Your task to perform on an android device: Go to Maps Image 0: 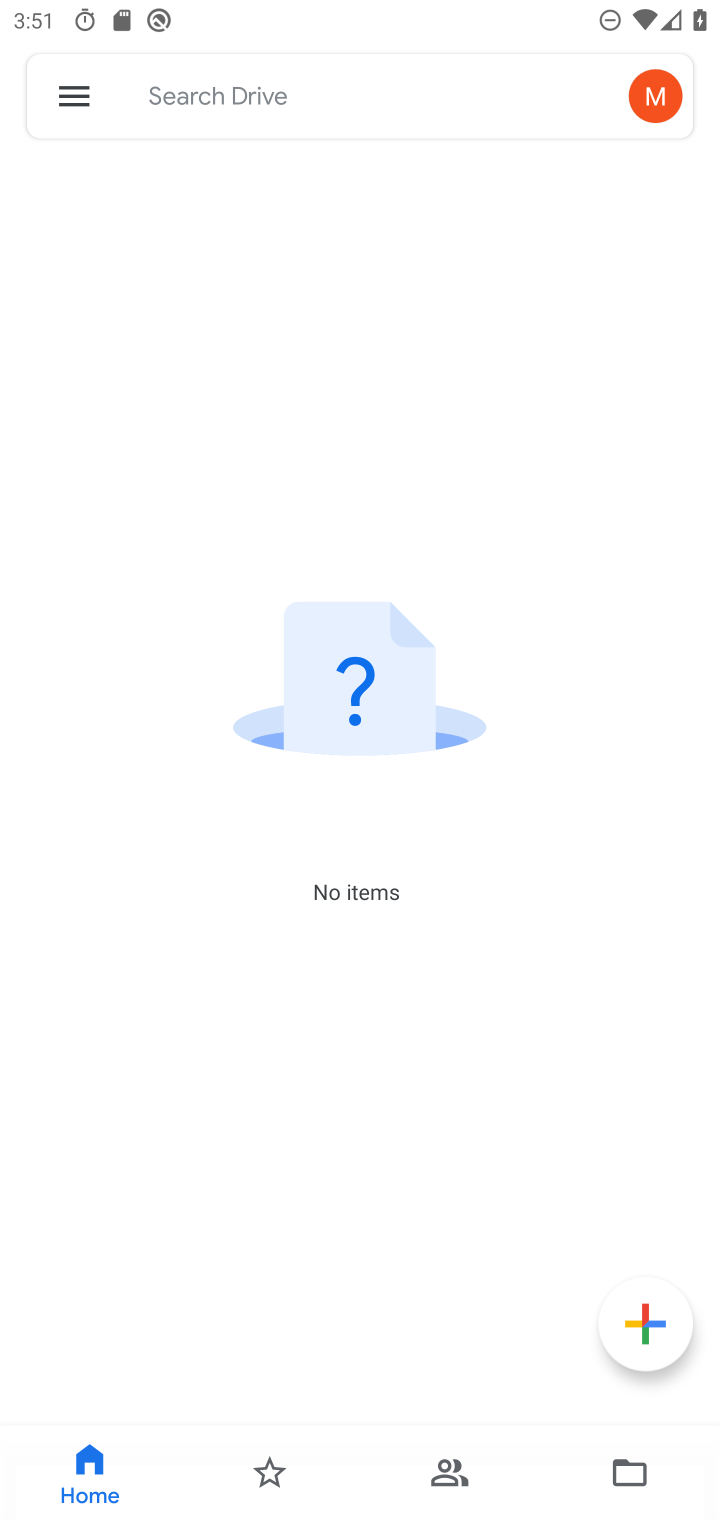
Step 0: press home button
Your task to perform on an android device: Go to Maps Image 1: 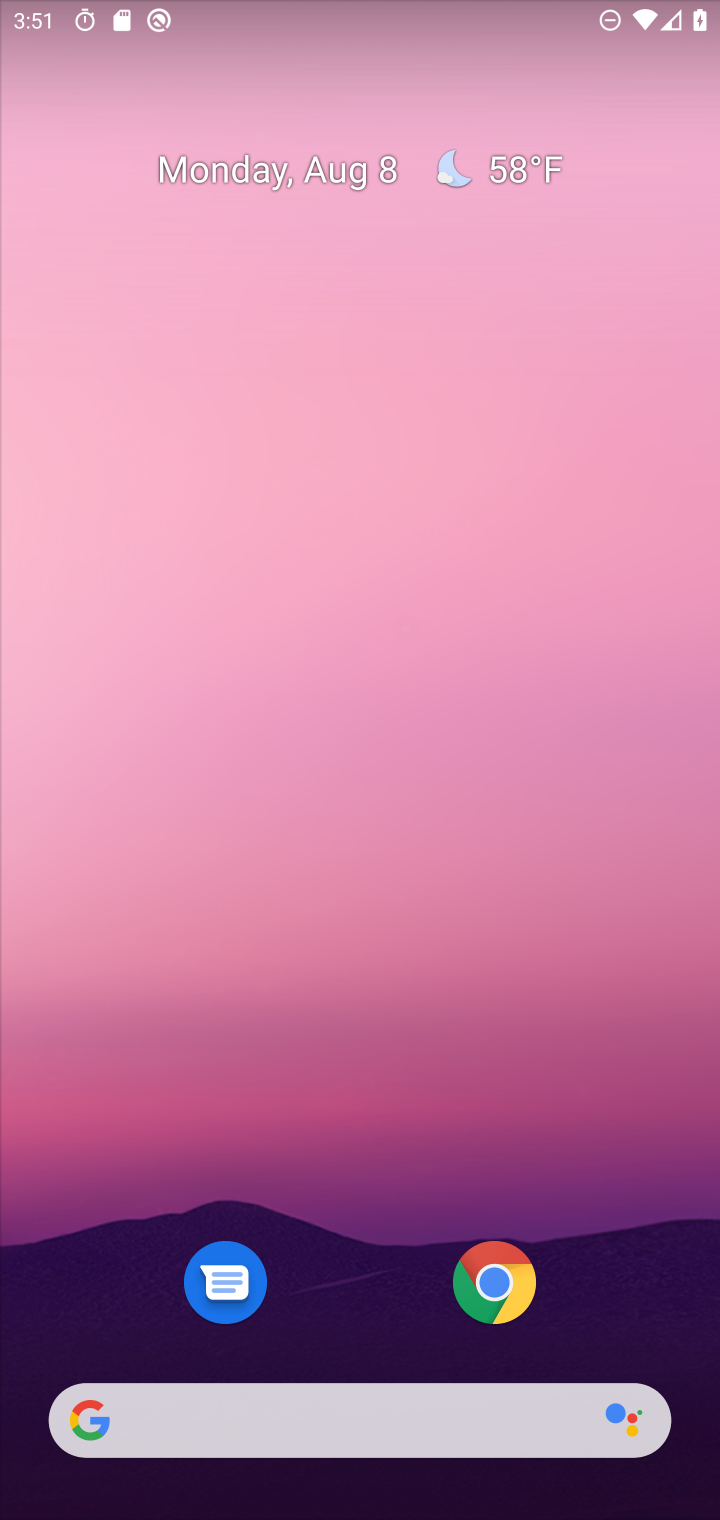
Step 1: drag from (406, 1151) to (714, 109)
Your task to perform on an android device: Go to Maps Image 2: 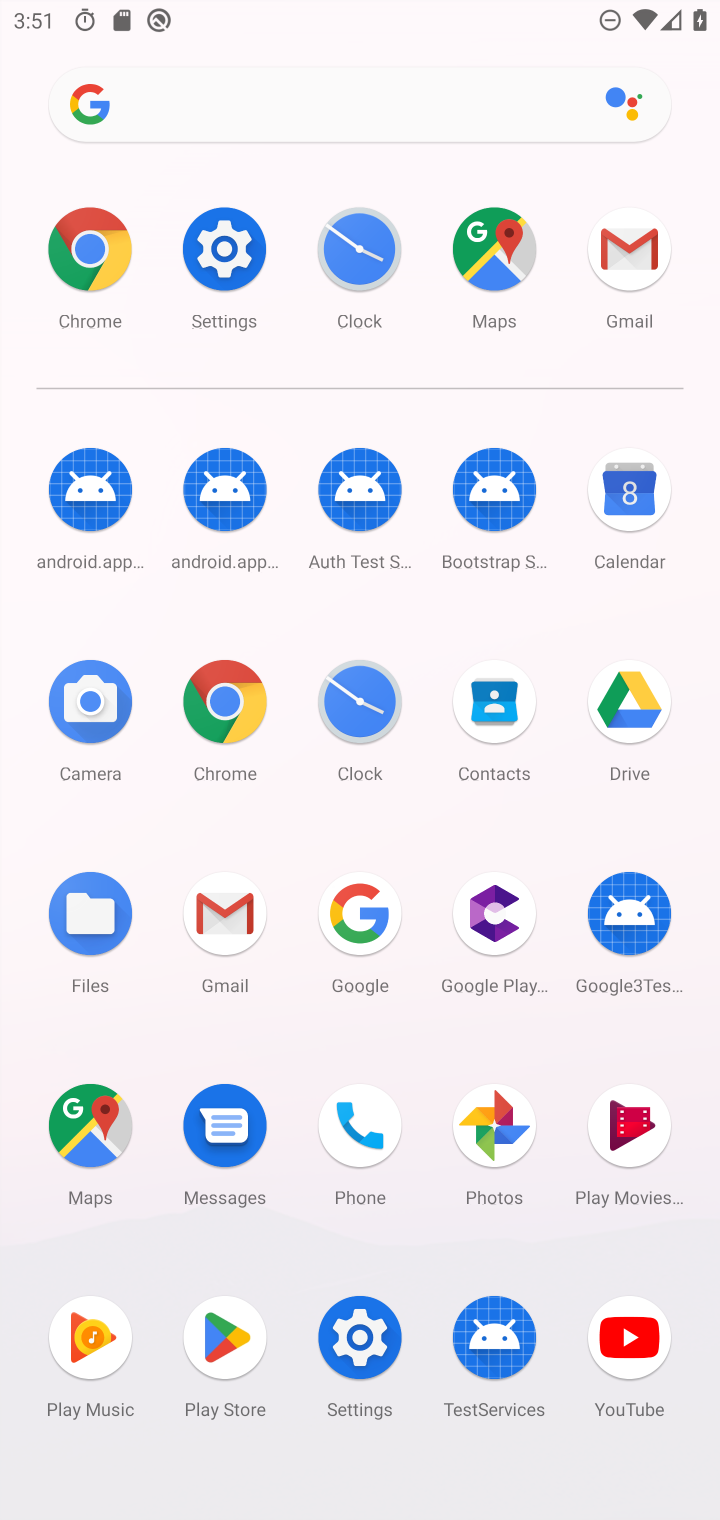
Step 2: click (65, 1133)
Your task to perform on an android device: Go to Maps Image 3: 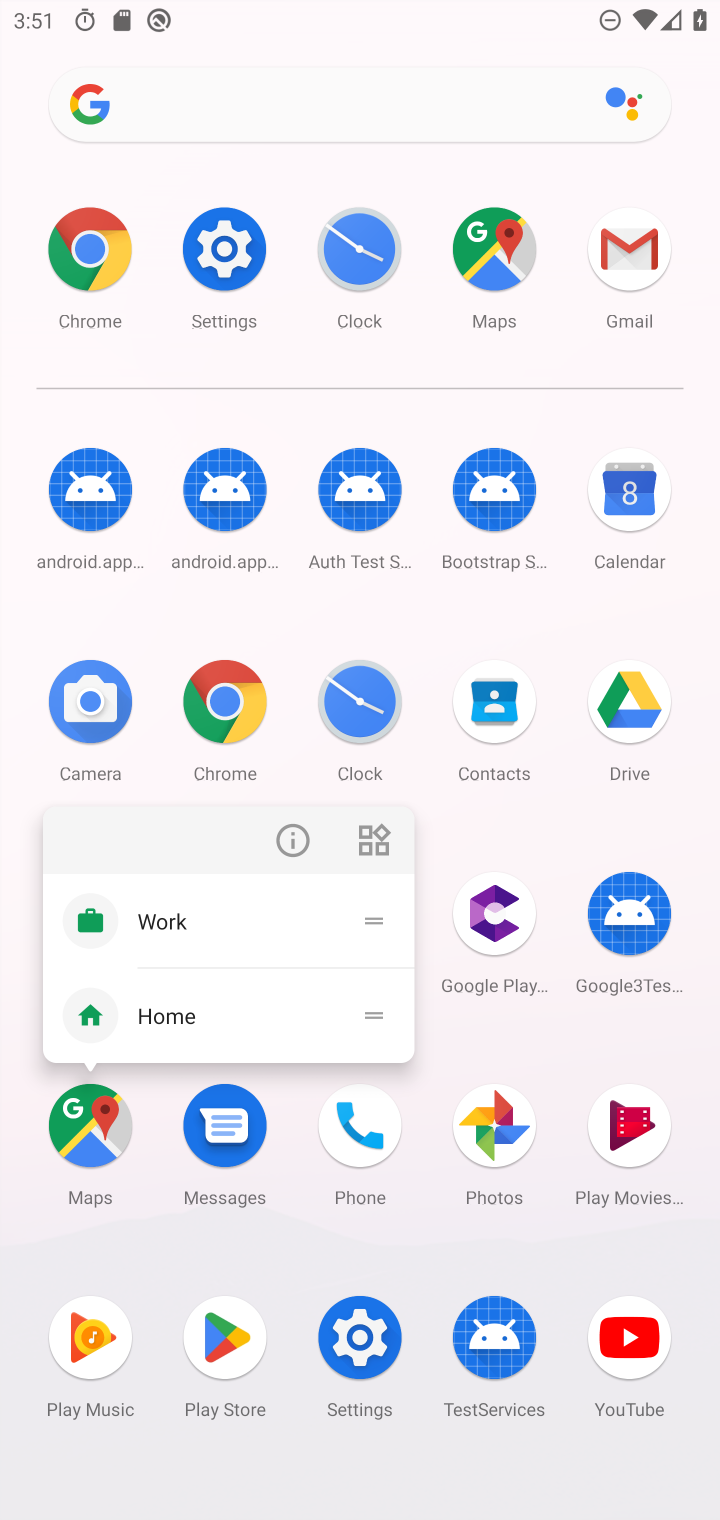
Step 3: click (86, 1131)
Your task to perform on an android device: Go to Maps Image 4: 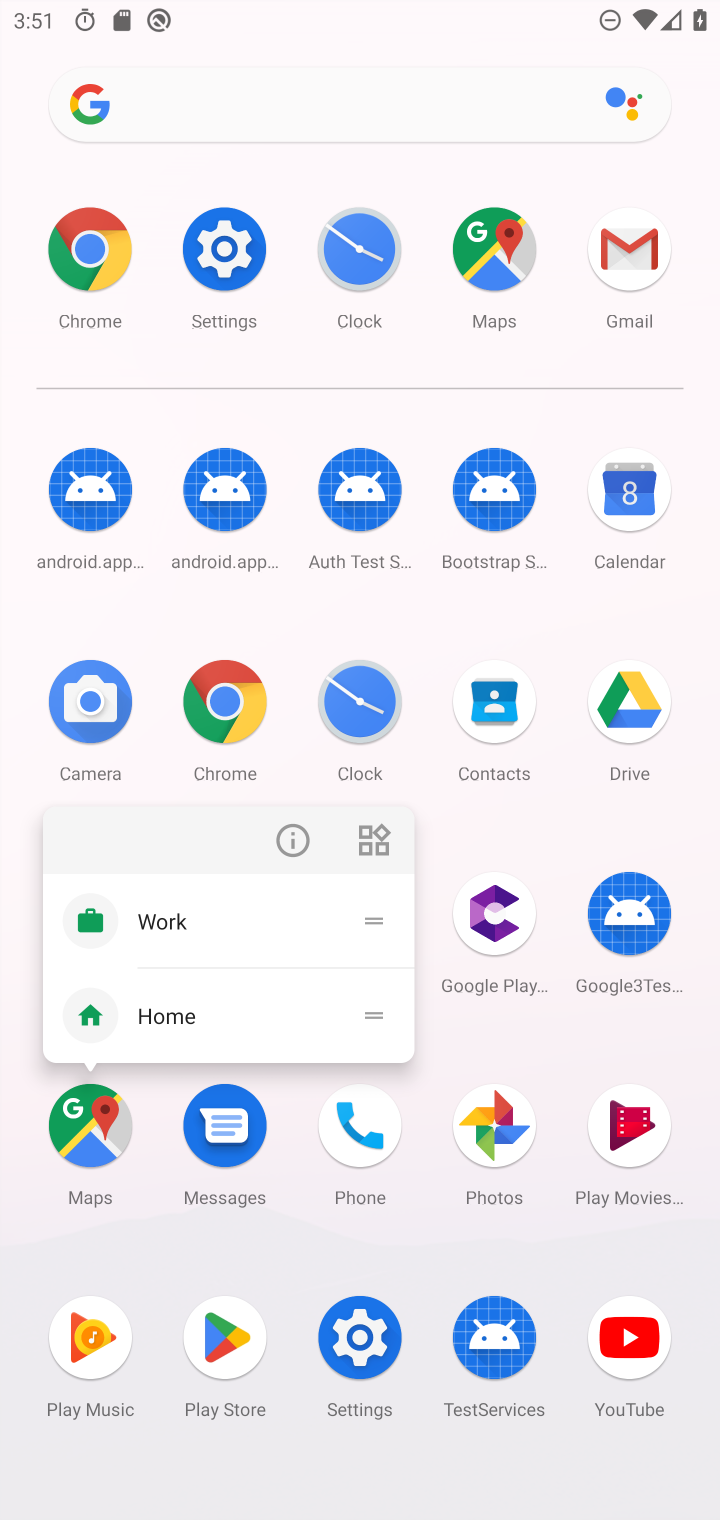
Step 4: click (86, 1129)
Your task to perform on an android device: Go to Maps Image 5: 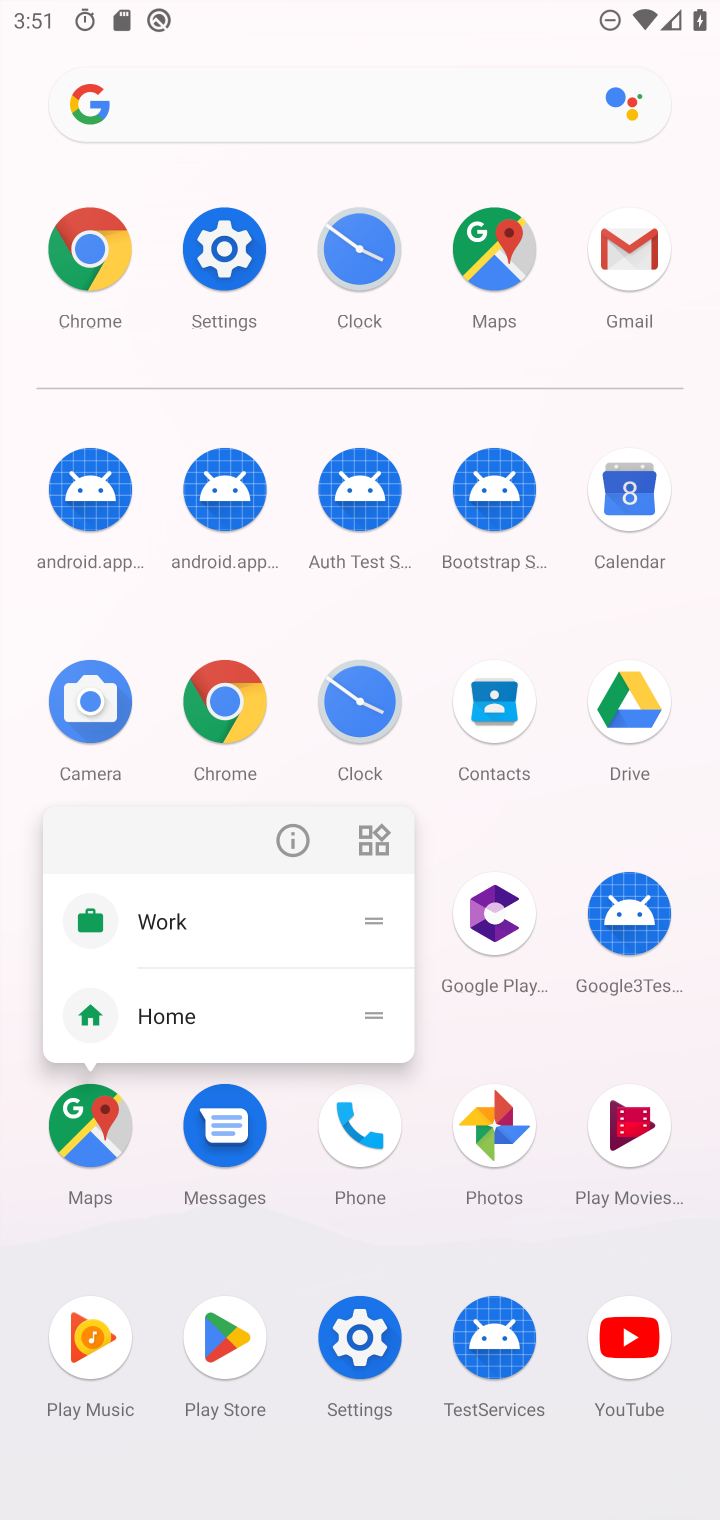
Step 5: click (92, 1119)
Your task to perform on an android device: Go to Maps Image 6: 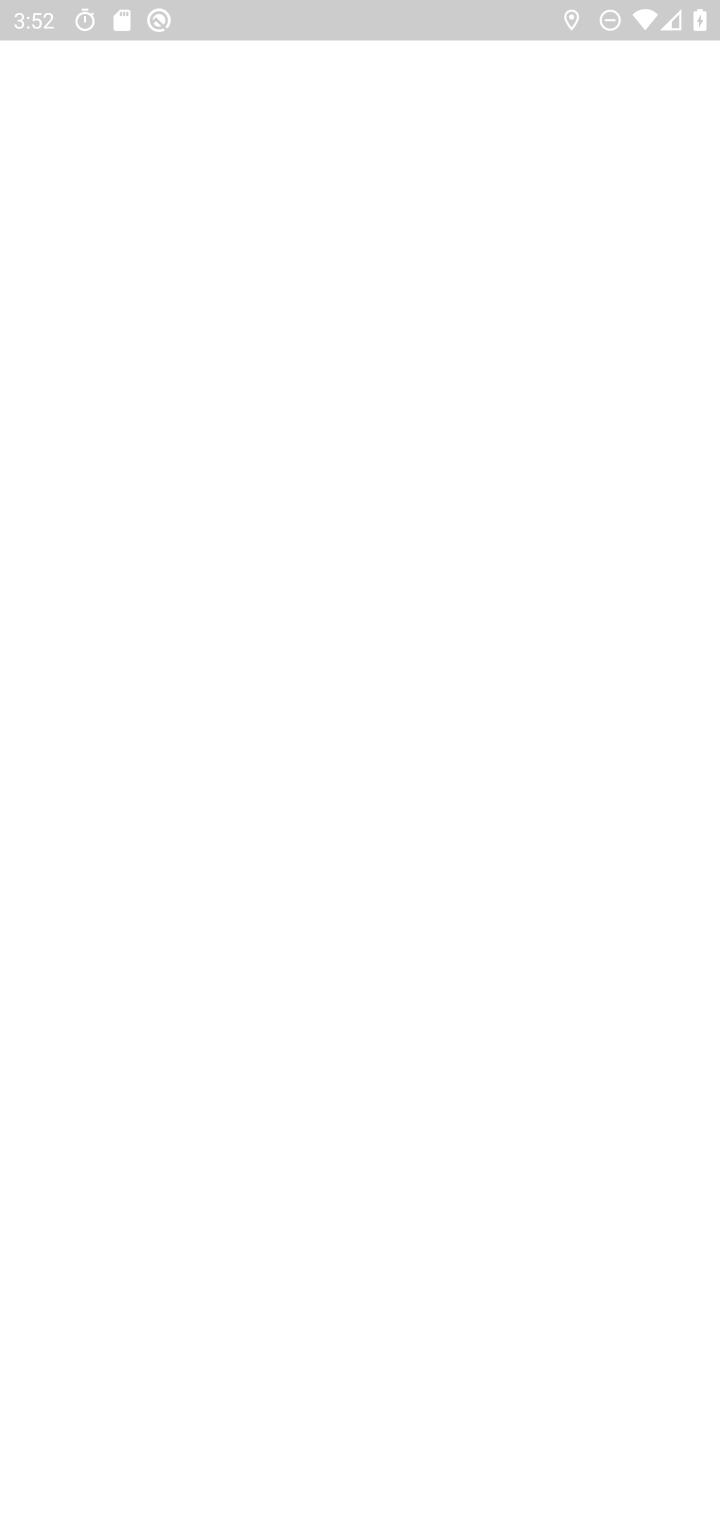
Step 6: task complete